Your task to perform on an android device: Open Chrome and go to settings Image 0: 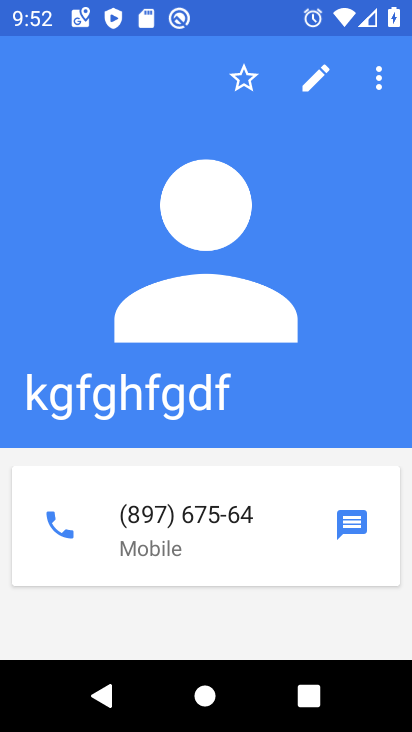
Step 0: press home button
Your task to perform on an android device: Open Chrome and go to settings Image 1: 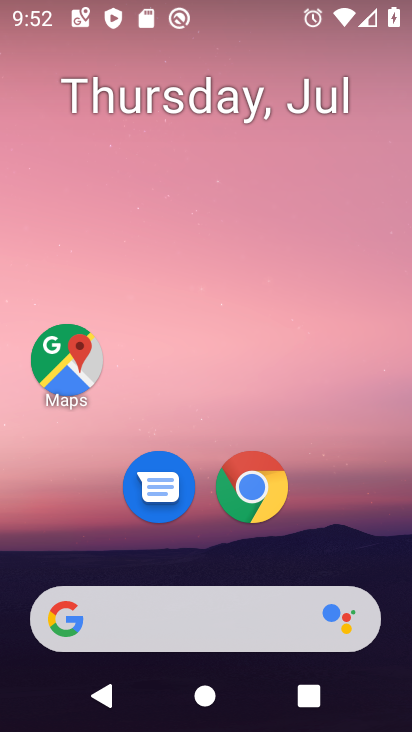
Step 1: click (276, 492)
Your task to perform on an android device: Open Chrome and go to settings Image 2: 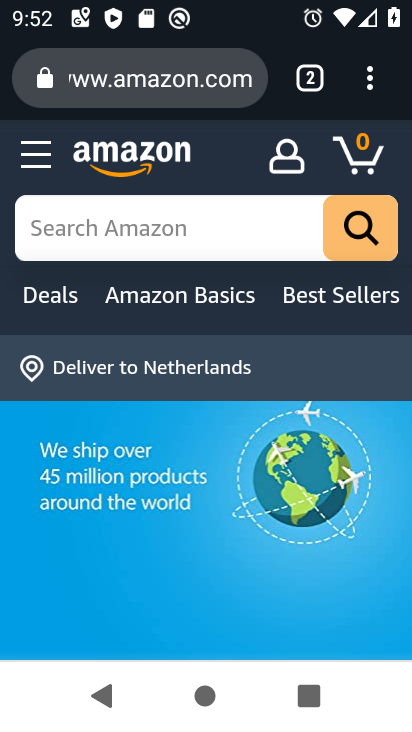
Step 2: click (380, 92)
Your task to perform on an android device: Open Chrome and go to settings Image 3: 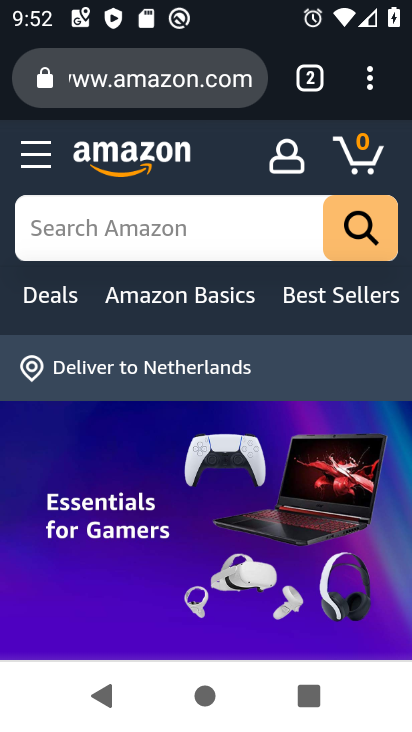
Step 3: click (365, 89)
Your task to perform on an android device: Open Chrome and go to settings Image 4: 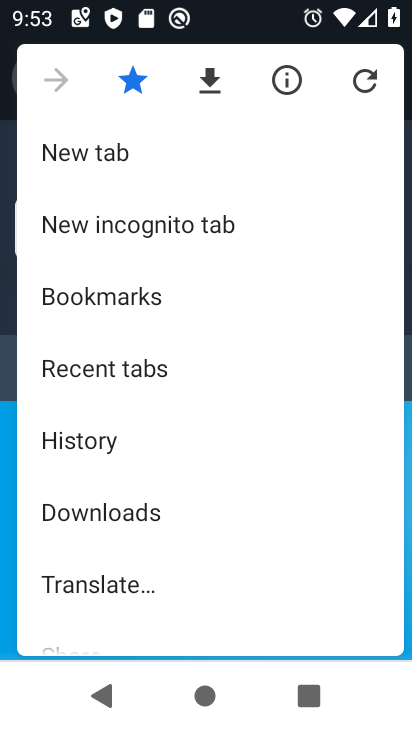
Step 4: drag from (172, 581) to (246, 75)
Your task to perform on an android device: Open Chrome and go to settings Image 5: 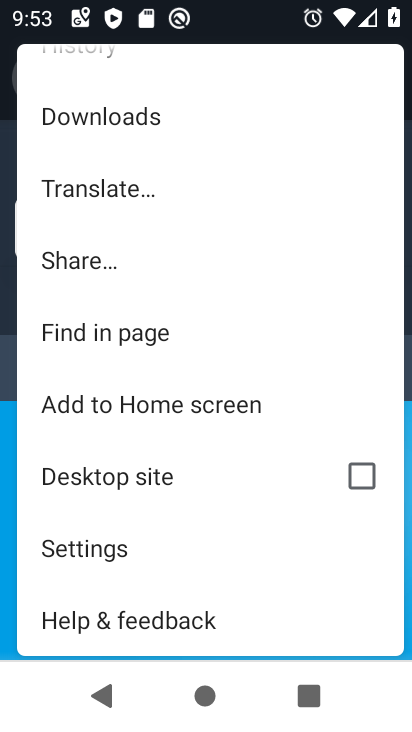
Step 5: click (110, 566)
Your task to perform on an android device: Open Chrome and go to settings Image 6: 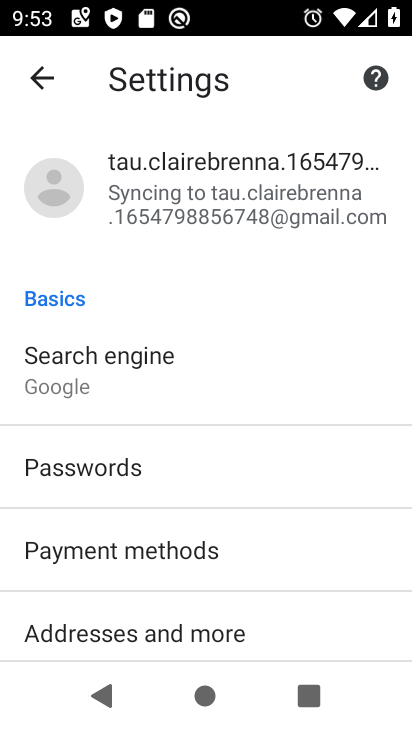
Step 6: task complete